Your task to perform on an android device: turn smart compose on in the gmail app Image 0: 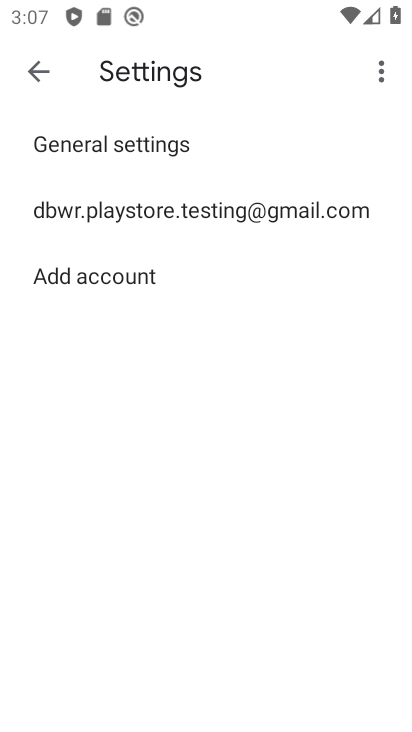
Step 0: press home button
Your task to perform on an android device: turn smart compose on in the gmail app Image 1: 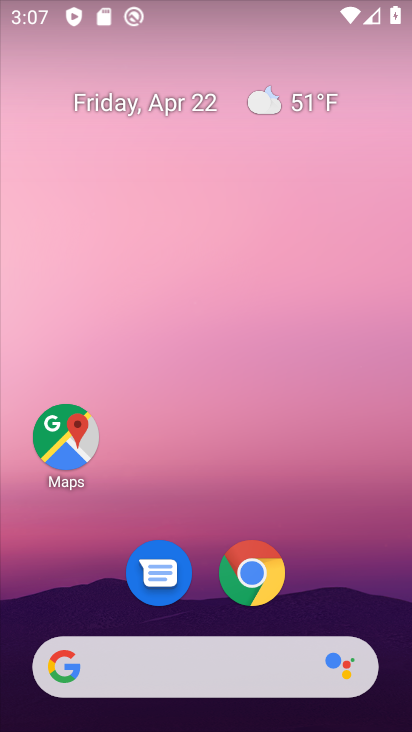
Step 1: drag from (298, 546) to (319, 171)
Your task to perform on an android device: turn smart compose on in the gmail app Image 2: 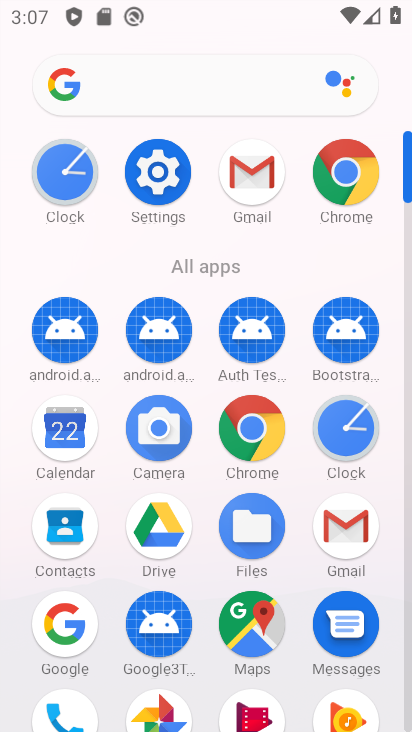
Step 2: click (350, 531)
Your task to perform on an android device: turn smart compose on in the gmail app Image 3: 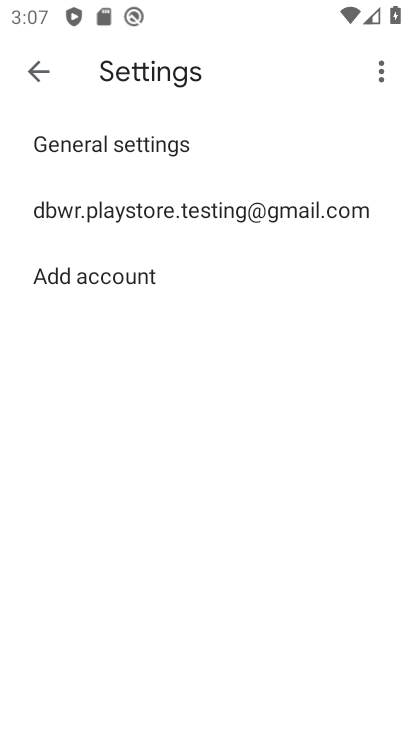
Step 3: click (164, 206)
Your task to perform on an android device: turn smart compose on in the gmail app Image 4: 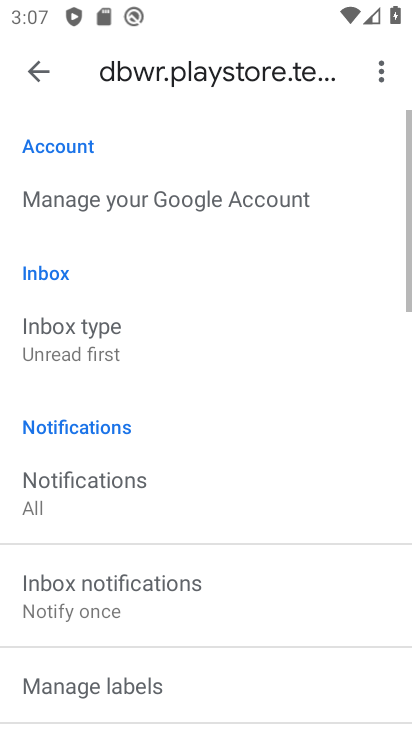
Step 4: task complete